Your task to perform on an android device: Check the news Image 0: 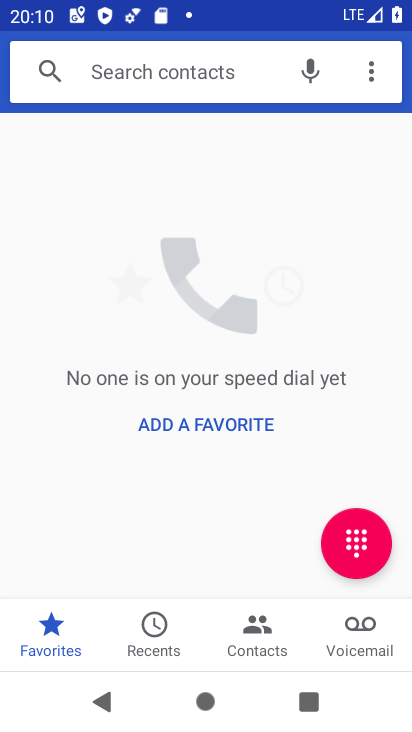
Step 0: press home button
Your task to perform on an android device: Check the news Image 1: 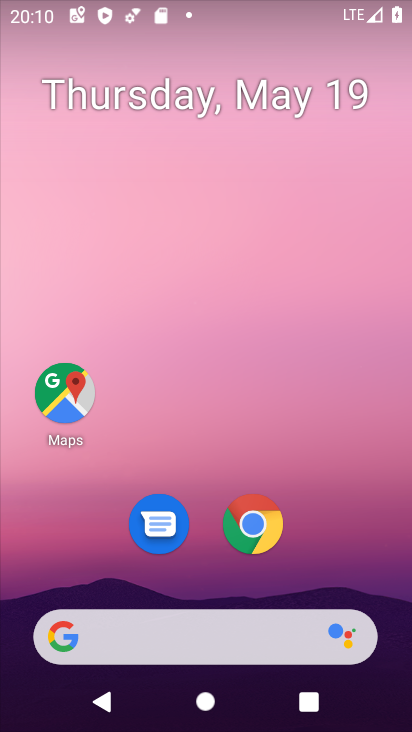
Step 1: click (237, 642)
Your task to perform on an android device: Check the news Image 2: 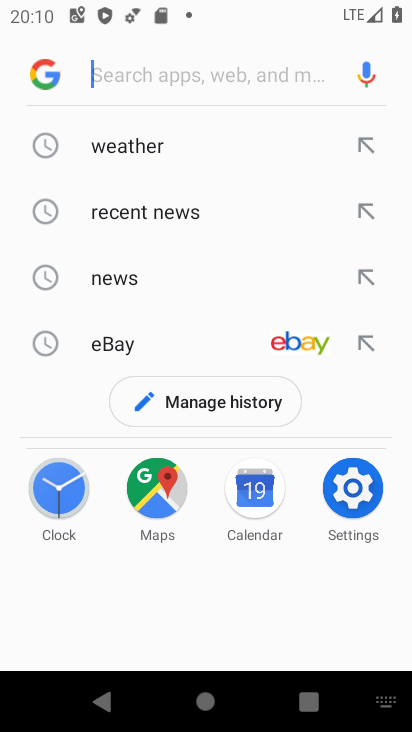
Step 2: click (107, 276)
Your task to perform on an android device: Check the news Image 3: 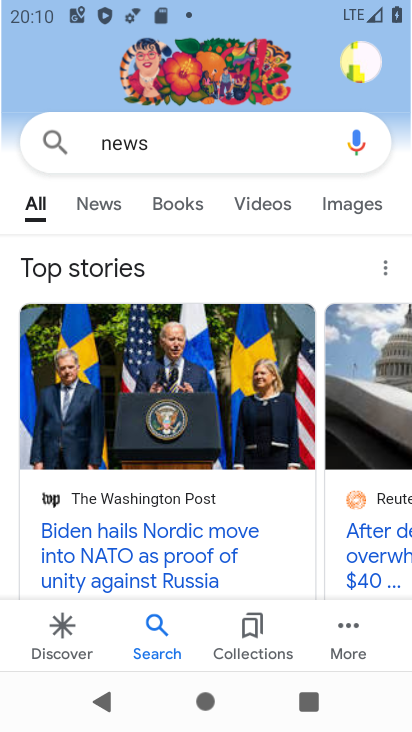
Step 3: click (101, 199)
Your task to perform on an android device: Check the news Image 4: 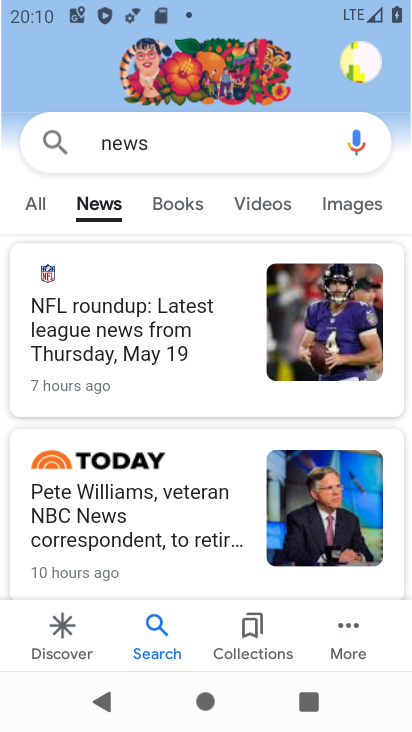
Step 4: task complete